Your task to perform on an android device: Open my contact list Image 0: 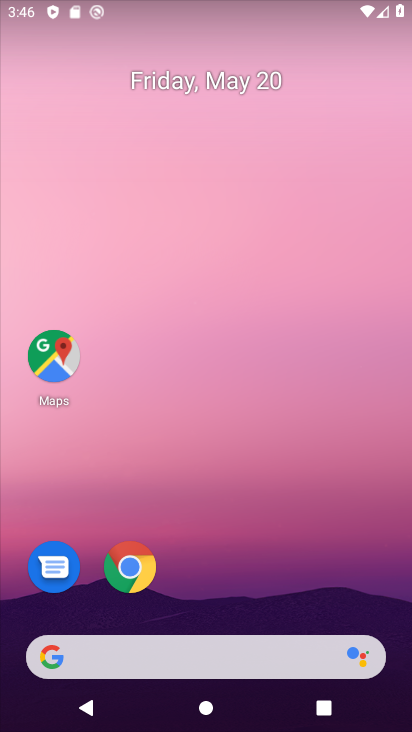
Step 0: drag from (185, 627) to (273, 26)
Your task to perform on an android device: Open my contact list Image 1: 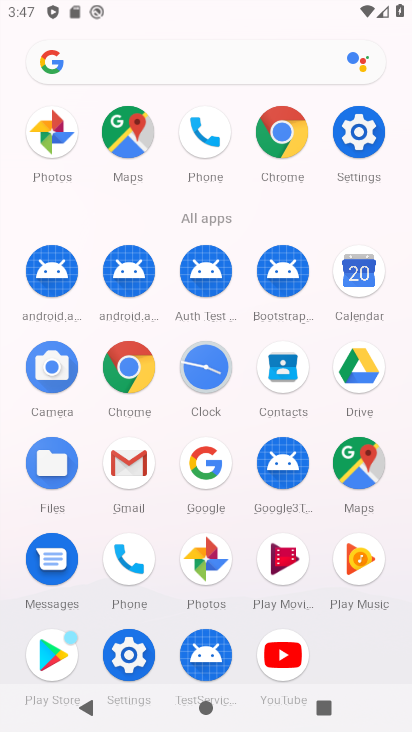
Step 1: click (293, 375)
Your task to perform on an android device: Open my contact list Image 2: 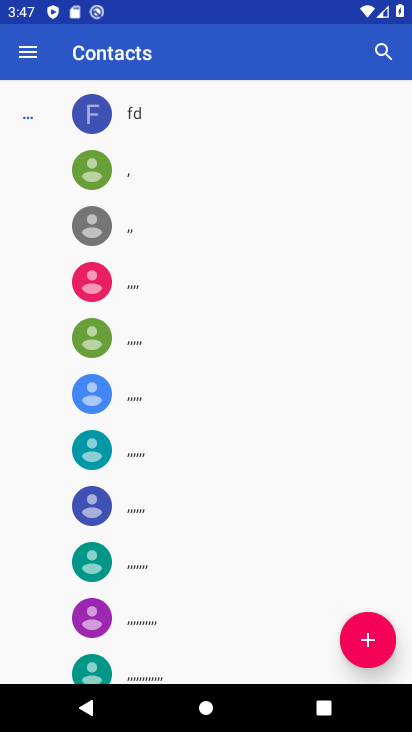
Step 2: task complete